Your task to perform on an android device: What is the news today? Image 0: 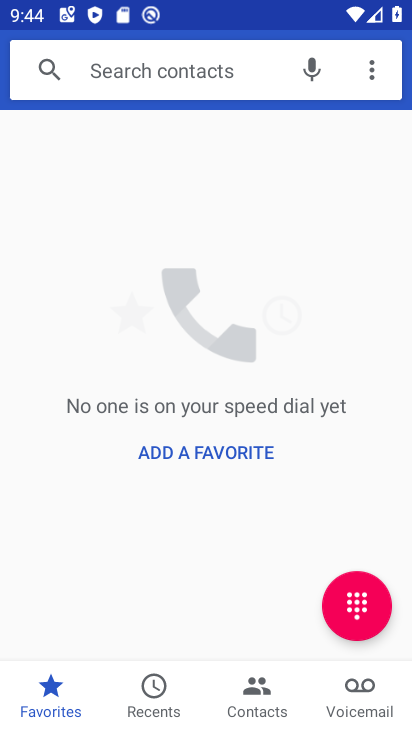
Step 0: press home button
Your task to perform on an android device: What is the news today? Image 1: 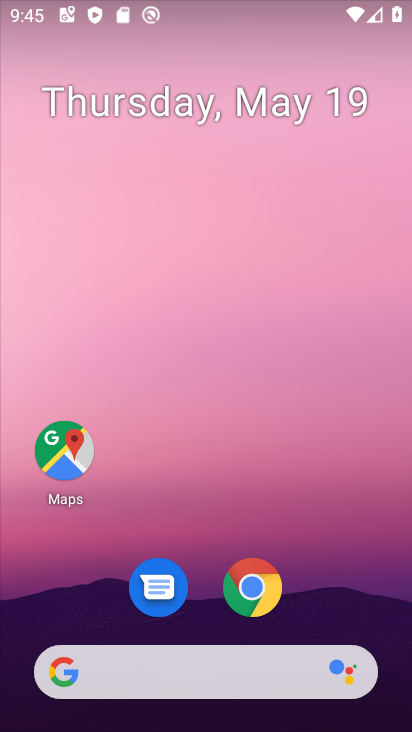
Step 1: task complete